Your task to perform on an android device: move an email to a new category in the gmail app Image 0: 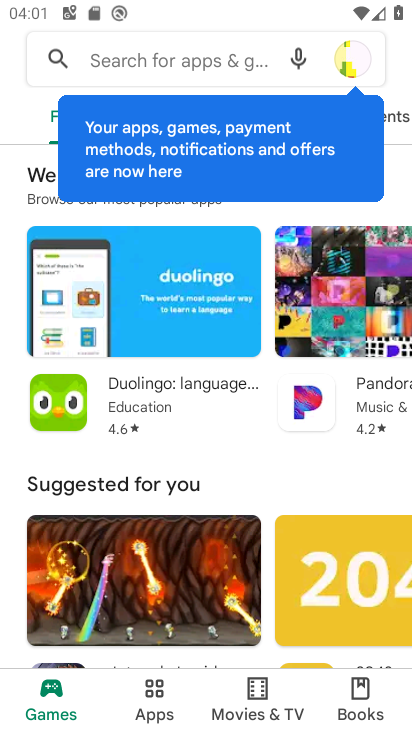
Step 0: press home button
Your task to perform on an android device: move an email to a new category in the gmail app Image 1: 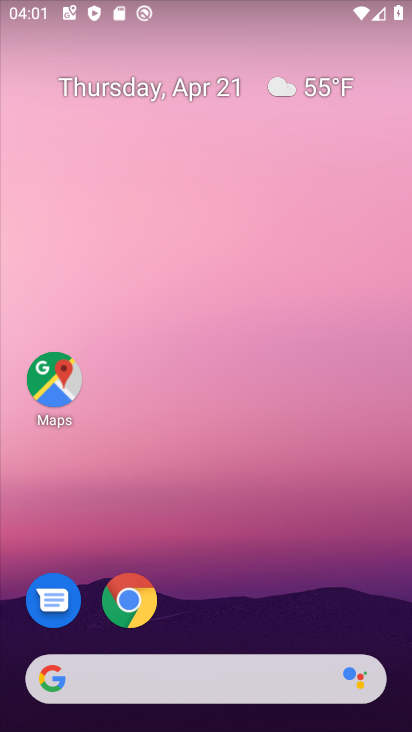
Step 1: drag from (245, 595) to (130, 110)
Your task to perform on an android device: move an email to a new category in the gmail app Image 2: 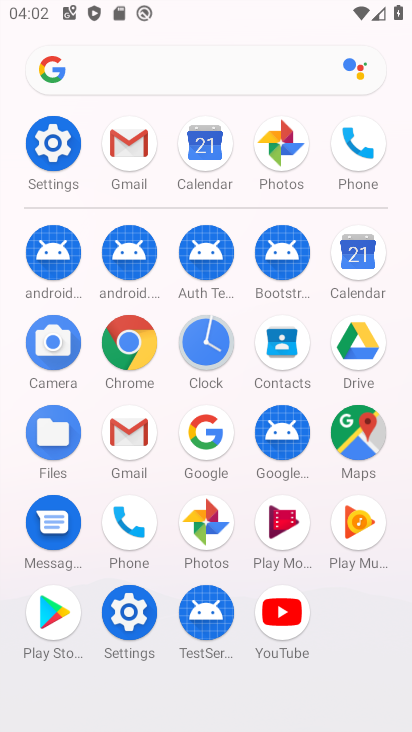
Step 2: click (122, 141)
Your task to perform on an android device: move an email to a new category in the gmail app Image 3: 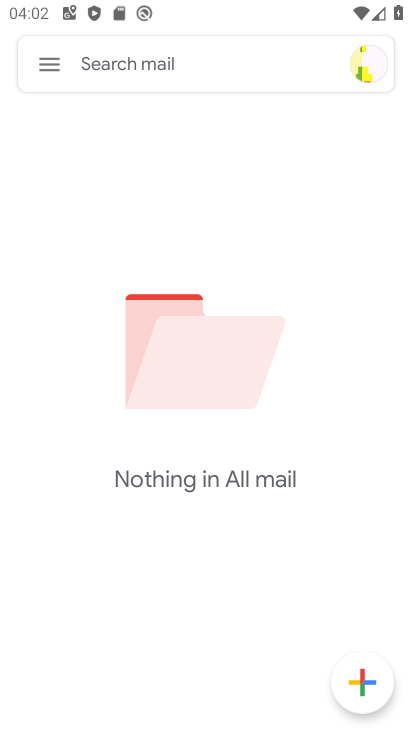
Step 3: task complete